Your task to perform on an android device: check battery use Image 0: 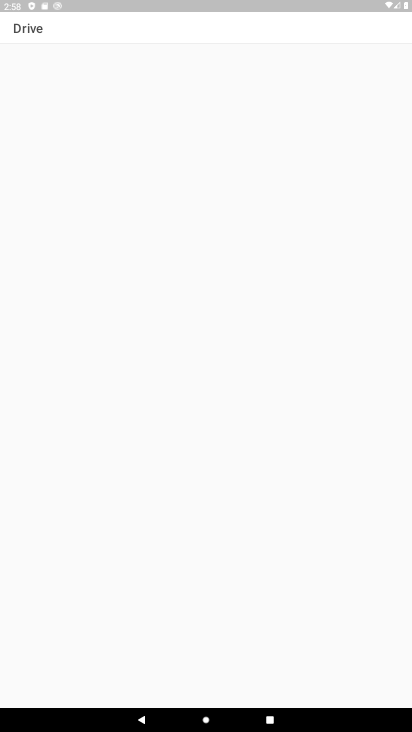
Step 0: press home button
Your task to perform on an android device: check battery use Image 1: 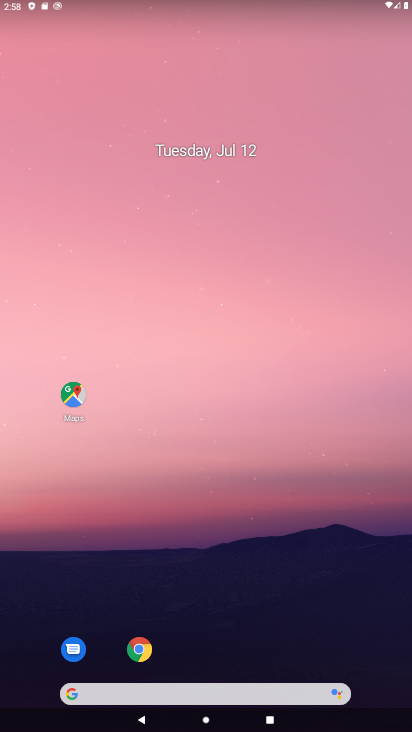
Step 1: drag from (192, 689) to (215, 168)
Your task to perform on an android device: check battery use Image 2: 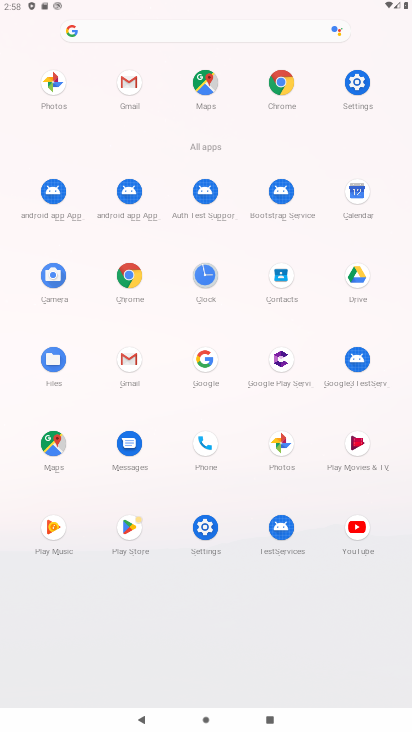
Step 2: click (353, 100)
Your task to perform on an android device: check battery use Image 3: 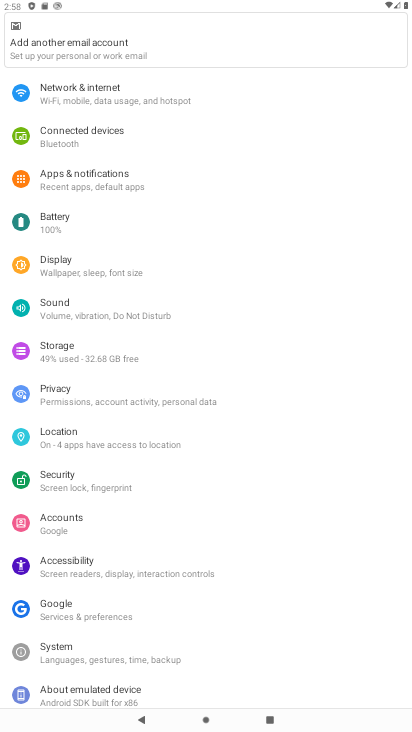
Step 3: click (75, 223)
Your task to perform on an android device: check battery use Image 4: 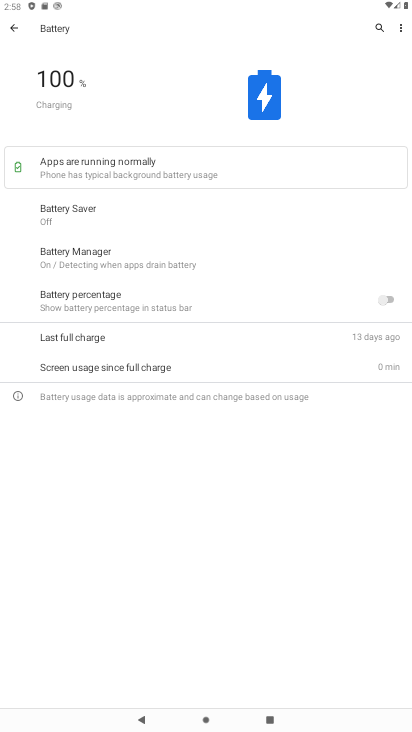
Step 4: click (398, 29)
Your task to perform on an android device: check battery use Image 5: 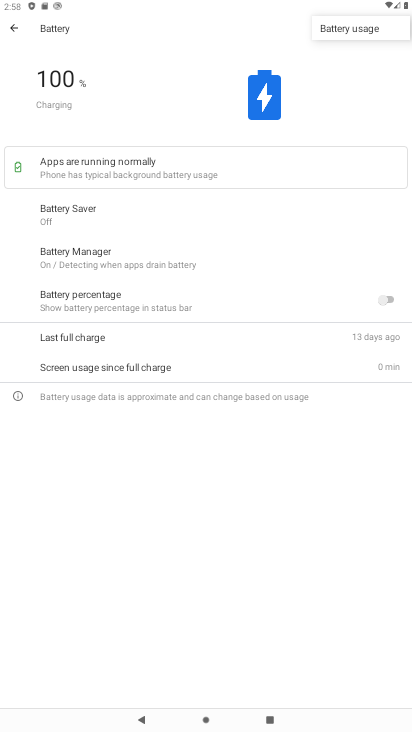
Step 5: click (361, 36)
Your task to perform on an android device: check battery use Image 6: 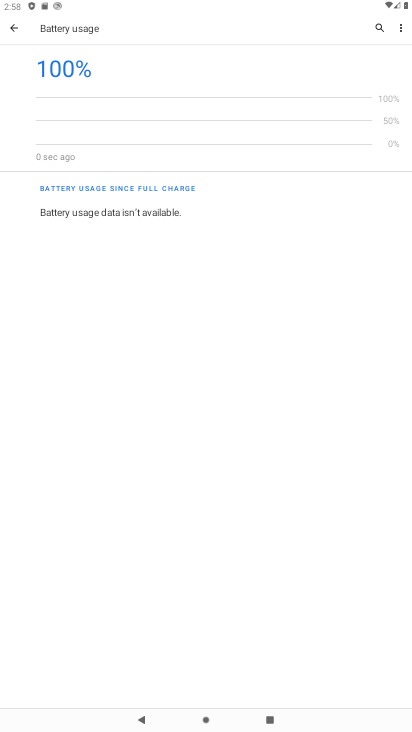
Step 6: task complete